Your task to perform on an android device: Open the map Image 0: 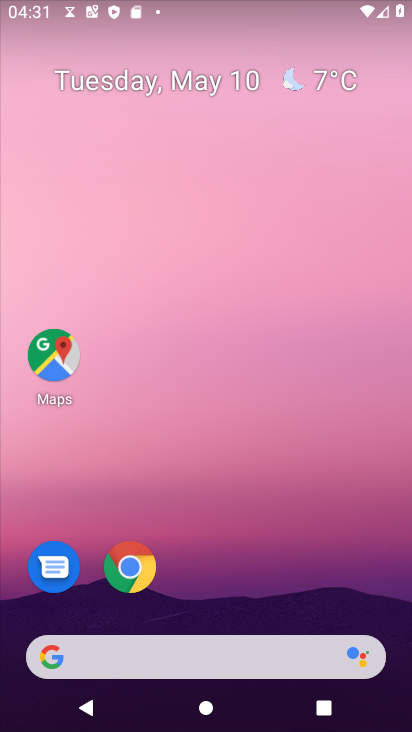
Step 0: click (53, 357)
Your task to perform on an android device: Open the map Image 1: 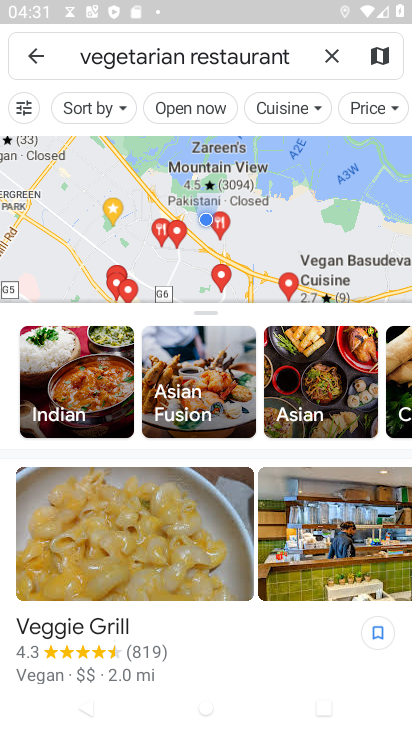
Step 1: click (337, 50)
Your task to perform on an android device: Open the map Image 2: 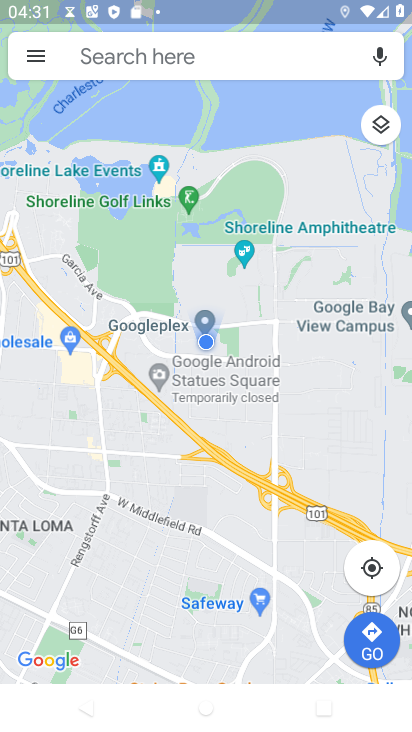
Step 2: task complete